Your task to perform on an android device: Go to CNN.com Image 0: 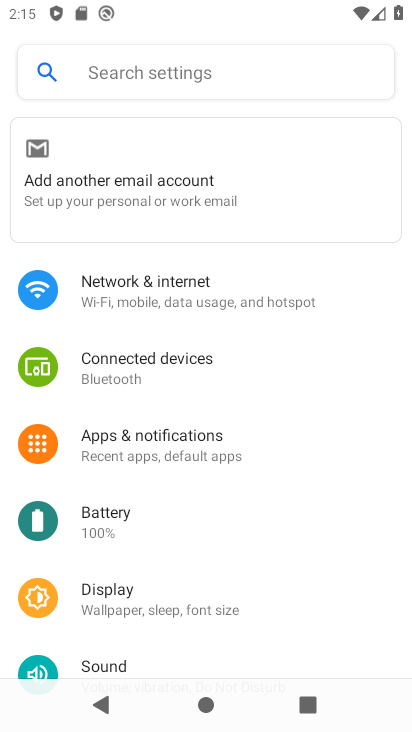
Step 0: press home button
Your task to perform on an android device: Go to CNN.com Image 1: 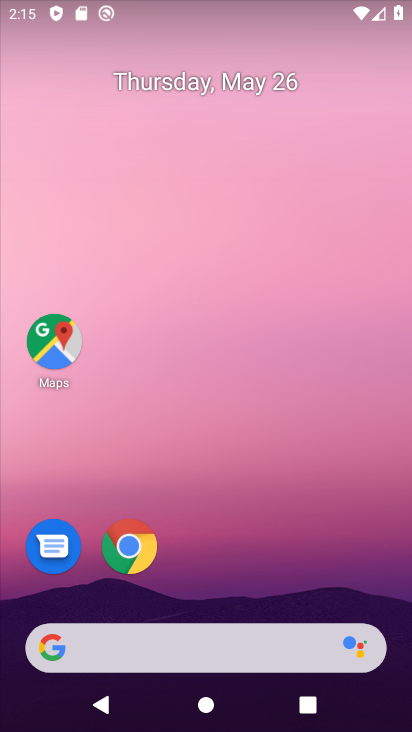
Step 1: click (134, 543)
Your task to perform on an android device: Go to CNN.com Image 2: 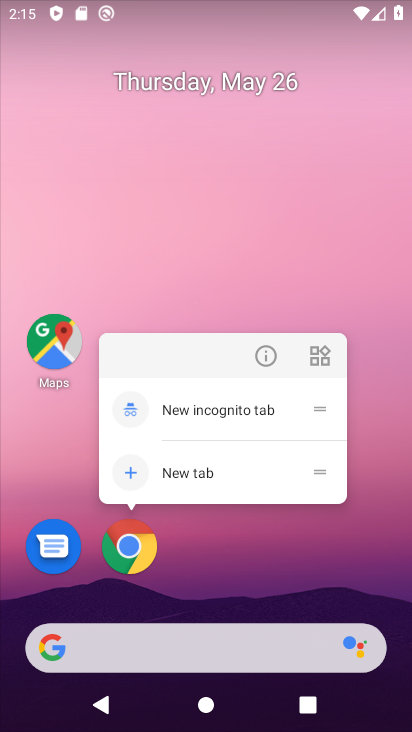
Step 2: click (134, 549)
Your task to perform on an android device: Go to CNN.com Image 3: 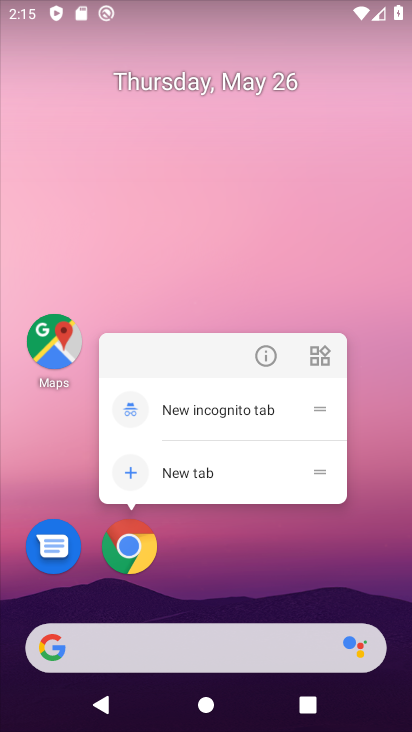
Step 3: click (134, 549)
Your task to perform on an android device: Go to CNN.com Image 4: 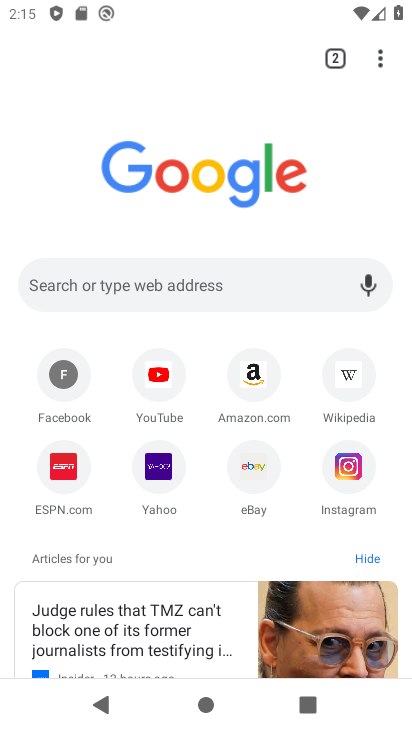
Step 4: click (379, 58)
Your task to perform on an android device: Go to CNN.com Image 5: 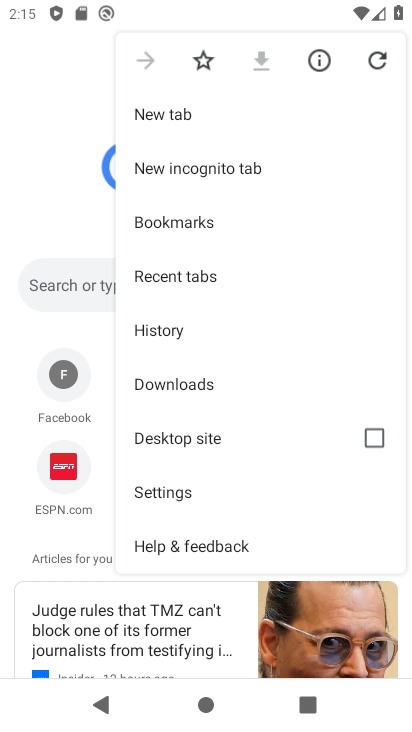
Step 5: click (76, 294)
Your task to perform on an android device: Go to CNN.com Image 6: 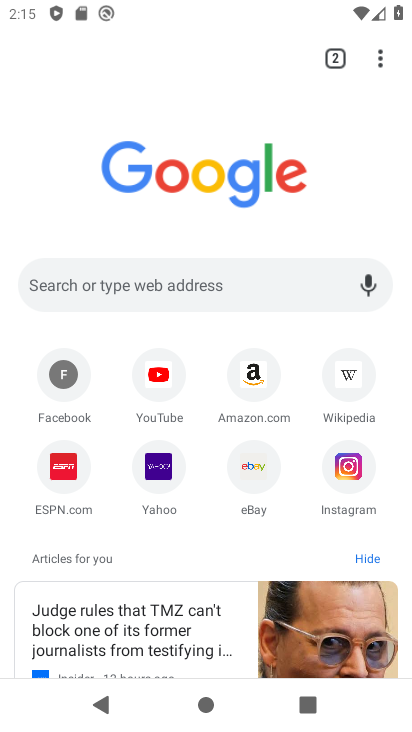
Step 6: click (76, 288)
Your task to perform on an android device: Go to CNN.com Image 7: 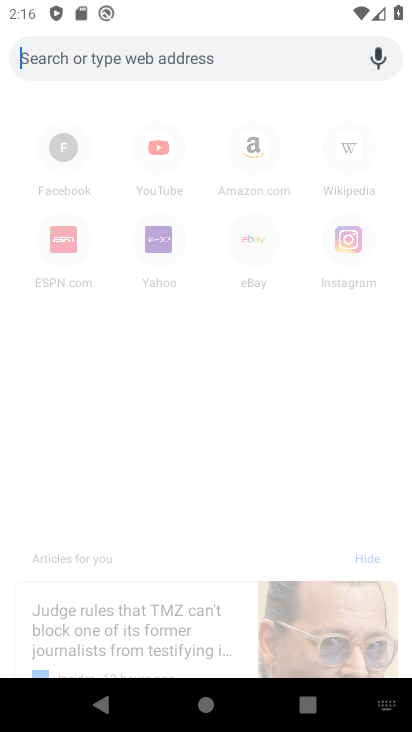
Step 7: type "CNN.com"
Your task to perform on an android device: Go to CNN.com Image 8: 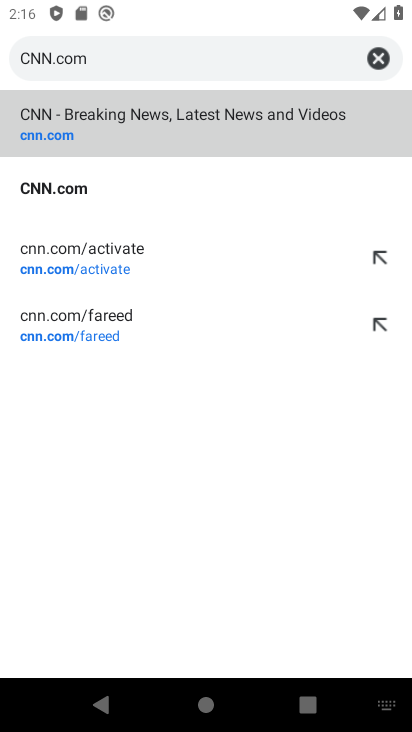
Step 8: click (53, 187)
Your task to perform on an android device: Go to CNN.com Image 9: 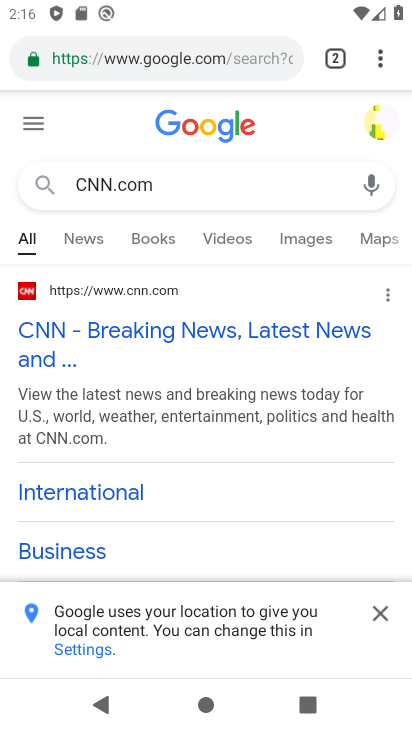
Step 9: task complete